Your task to perform on an android device: star an email in the gmail app Image 0: 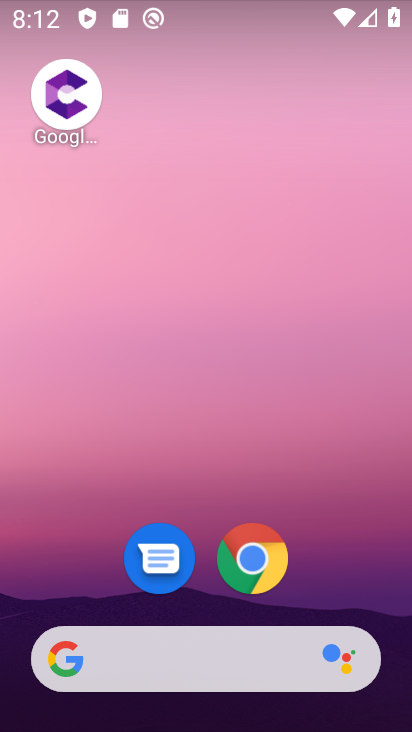
Step 0: drag from (326, 577) to (344, 1)
Your task to perform on an android device: star an email in the gmail app Image 1: 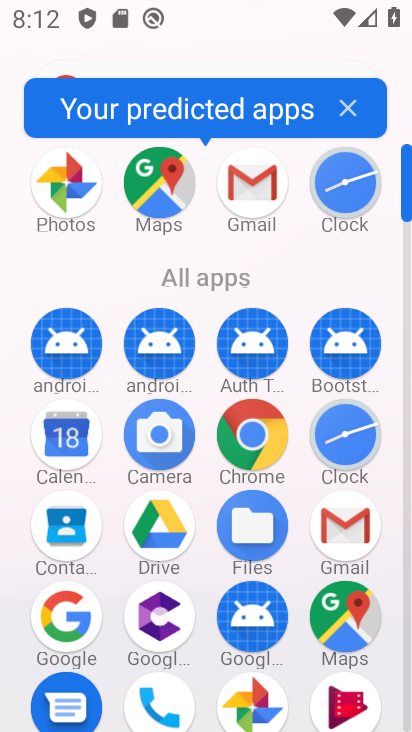
Step 1: click (351, 518)
Your task to perform on an android device: star an email in the gmail app Image 2: 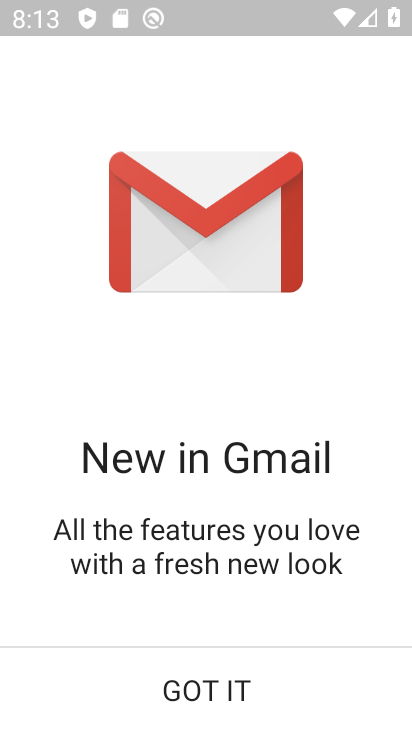
Step 2: click (193, 675)
Your task to perform on an android device: star an email in the gmail app Image 3: 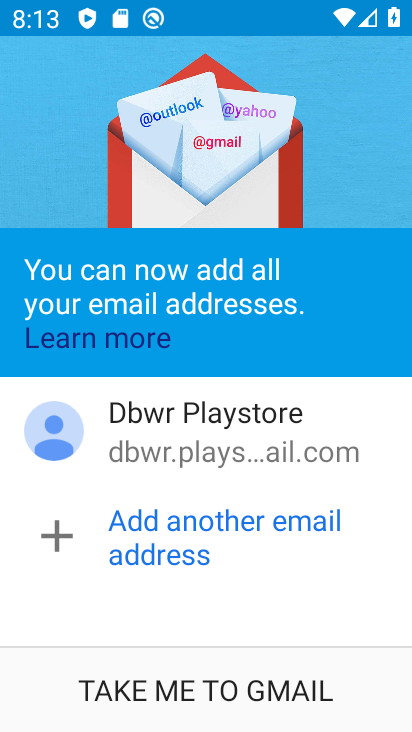
Step 3: click (179, 691)
Your task to perform on an android device: star an email in the gmail app Image 4: 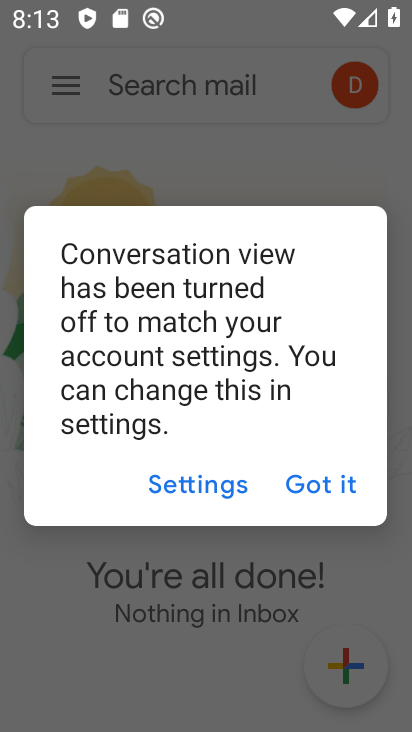
Step 4: click (324, 484)
Your task to perform on an android device: star an email in the gmail app Image 5: 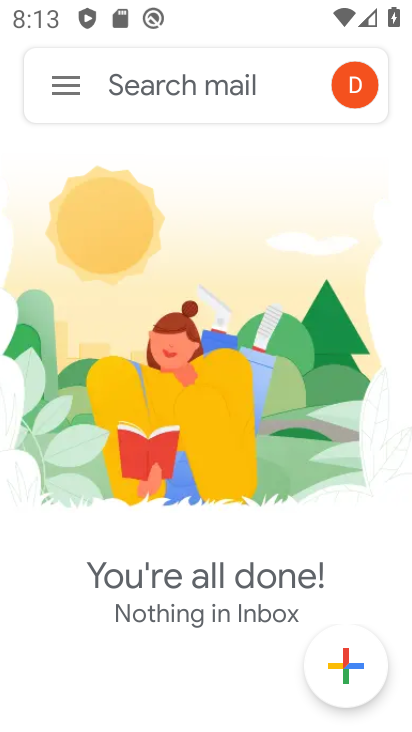
Step 5: click (75, 87)
Your task to perform on an android device: star an email in the gmail app Image 6: 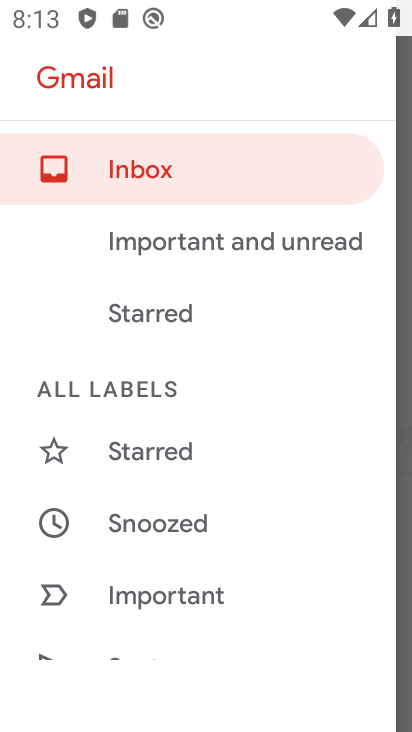
Step 6: click (157, 171)
Your task to perform on an android device: star an email in the gmail app Image 7: 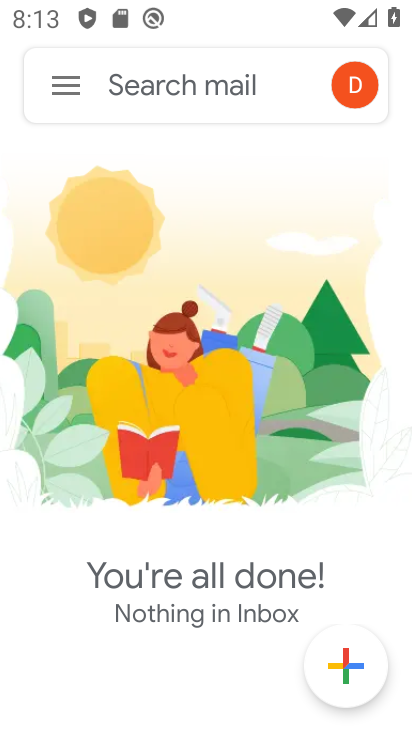
Step 7: task complete